Your task to perform on an android device: Go to Amazon Image 0: 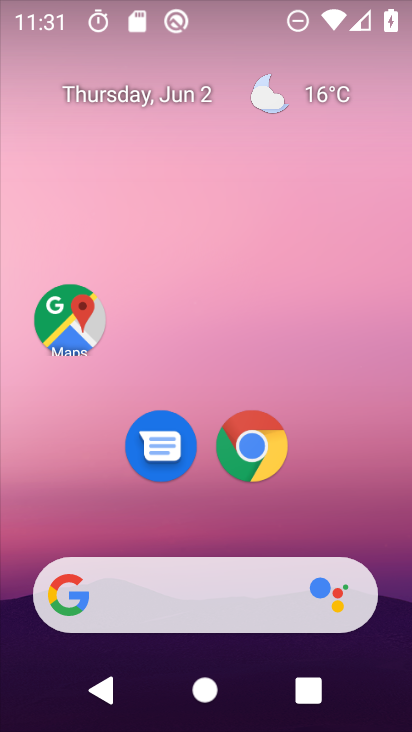
Step 0: drag from (382, 485) to (403, 354)
Your task to perform on an android device: Go to Amazon Image 1: 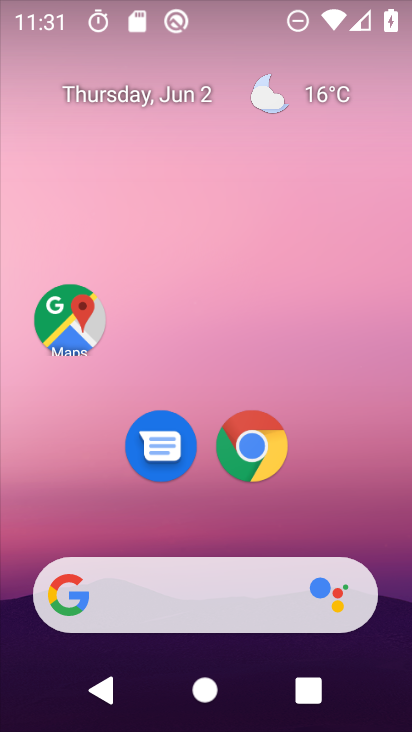
Step 1: drag from (380, 505) to (380, 141)
Your task to perform on an android device: Go to Amazon Image 2: 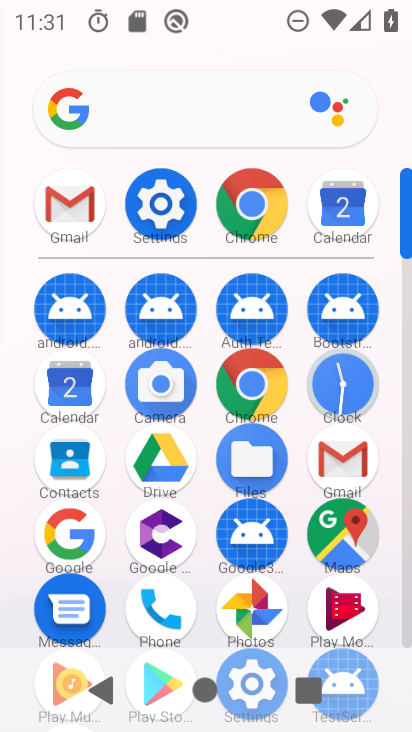
Step 2: click (266, 401)
Your task to perform on an android device: Go to Amazon Image 3: 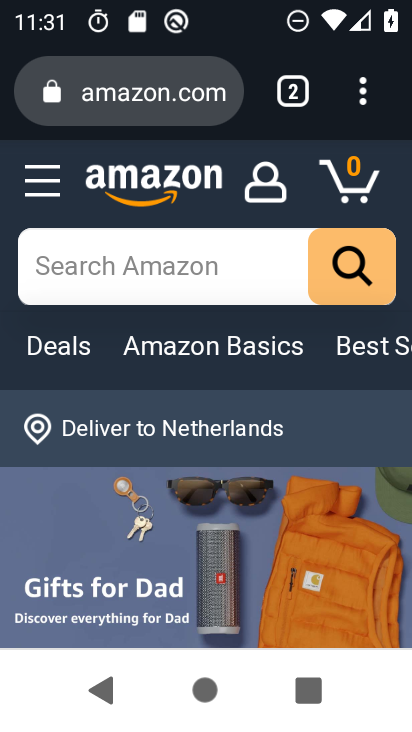
Step 3: task complete